Your task to perform on an android device: change the clock display to show seconds Image 0: 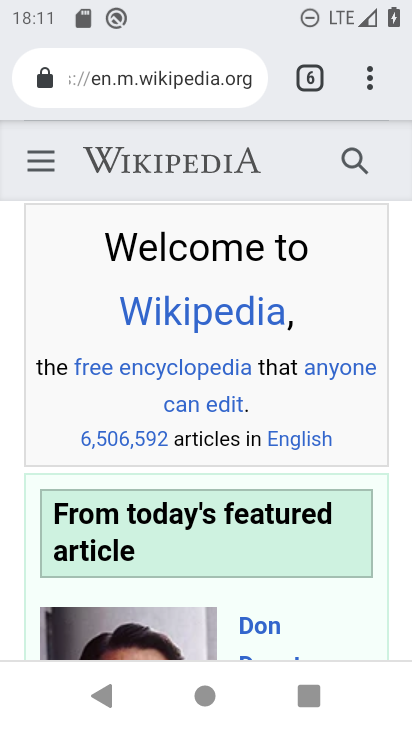
Step 0: press home button
Your task to perform on an android device: change the clock display to show seconds Image 1: 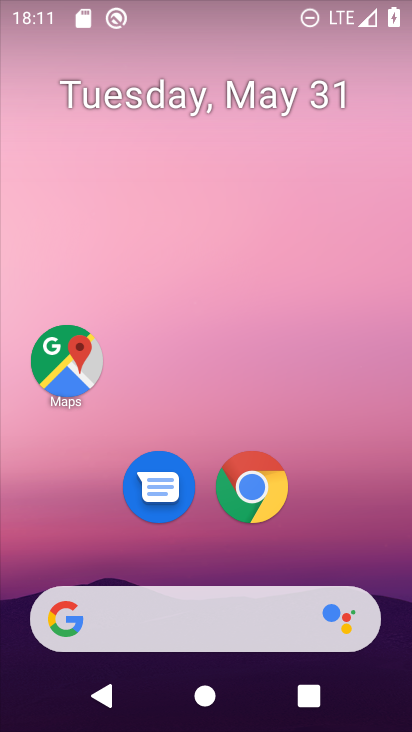
Step 1: drag from (344, 539) to (249, 152)
Your task to perform on an android device: change the clock display to show seconds Image 2: 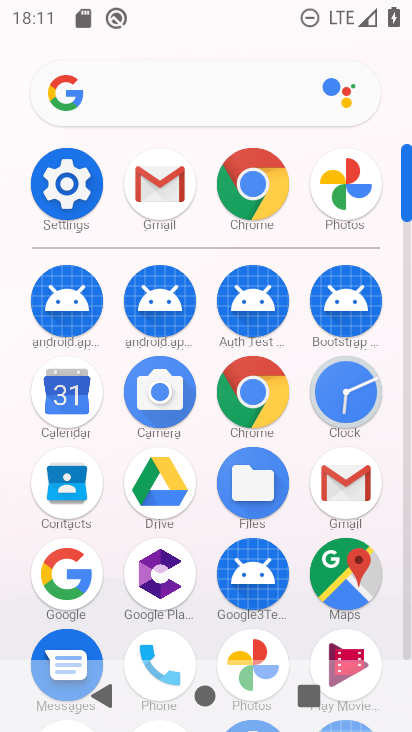
Step 2: click (335, 381)
Your task to perform on an android device: change the clock display to show seconds Image 3: 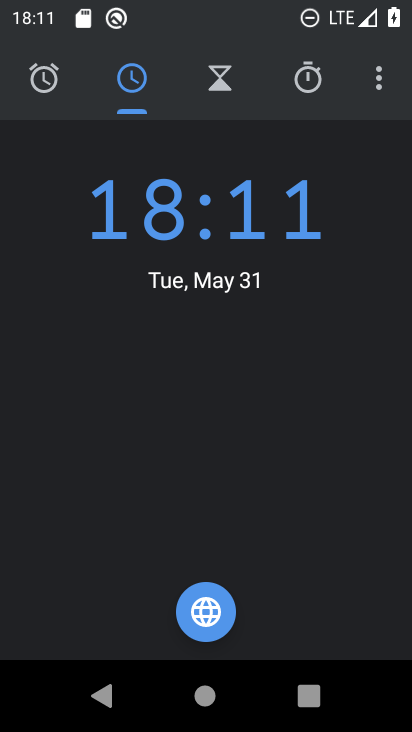
Step 3: click (379, 80)
Your task to perform on an android device: change the clock display to show seconds Image 4: 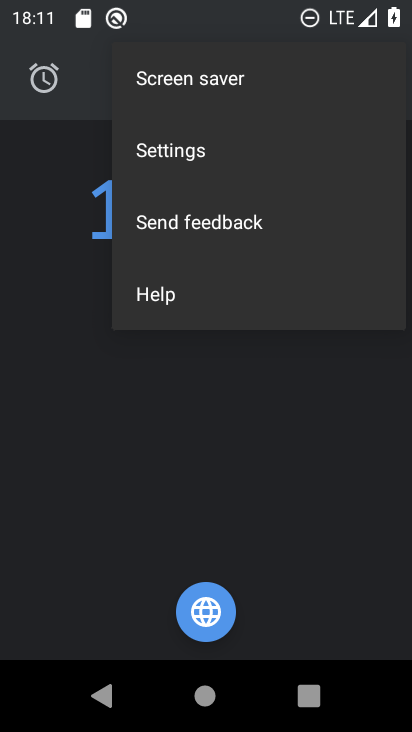
Step 4: click (196, 141)
Your task to perform on an android device: change the clock display to show seconds Image 5: 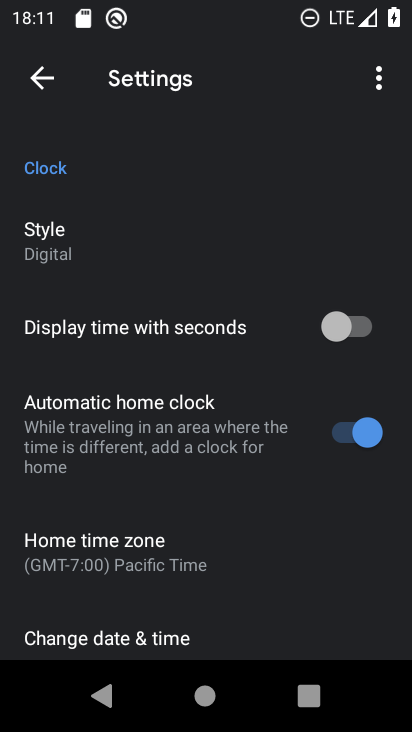
Step 5: click (333, 323)
Your task to perform on an android device: change the clock display to show seconds Image 6: 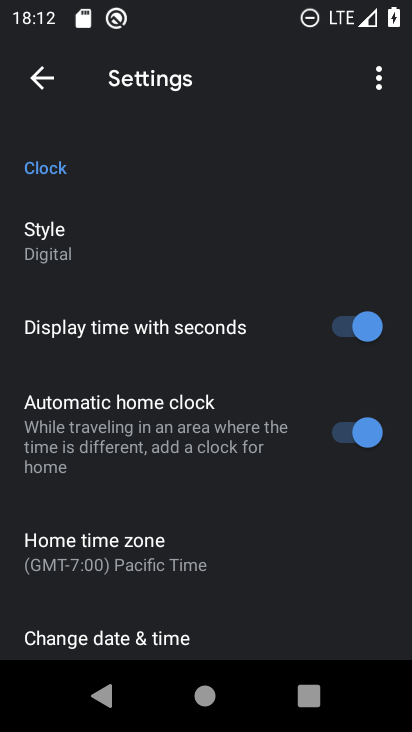
Step 6: task complete